Your task to perform on an android device: turn on the 24-hour format for clock Image 0: 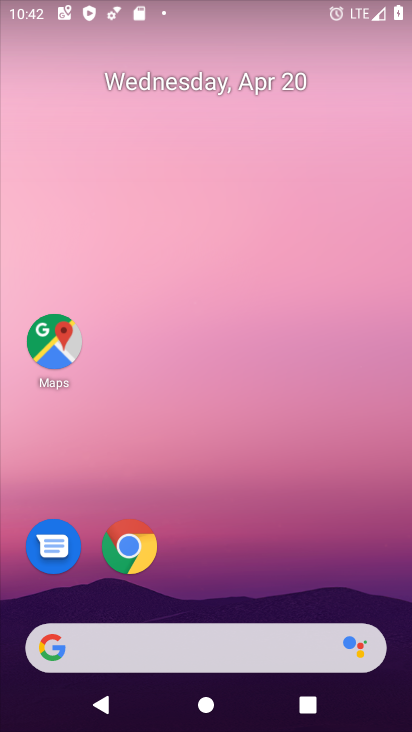
Step 0: drag from (256, 480) to (216, 150)
Your task to perform on an android device: turn on the 24-hour format for clock Image 1: 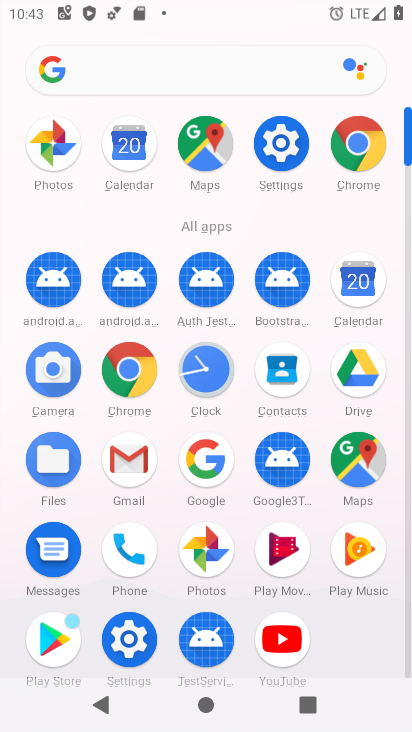
Step 1: click (206, 351)
Your task to perform on an android device: turn on the 24-hour format for clock Image 2: 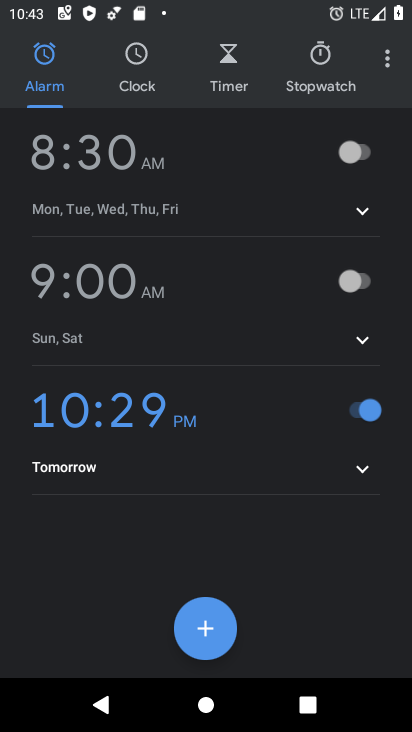
Step 2: click (386, 63)
Your task to perform on an android device: turn on the 24-hour format for clock Image 3: 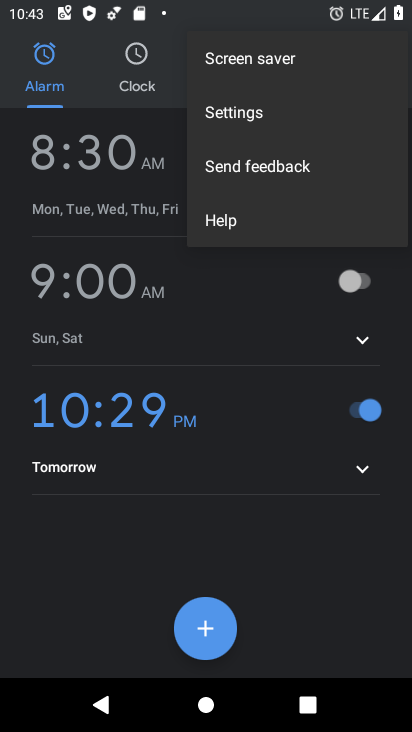
Step 3: click (249, 119)
Your task to perform on an android device: turn on the 24-hour format for clock Image 4: 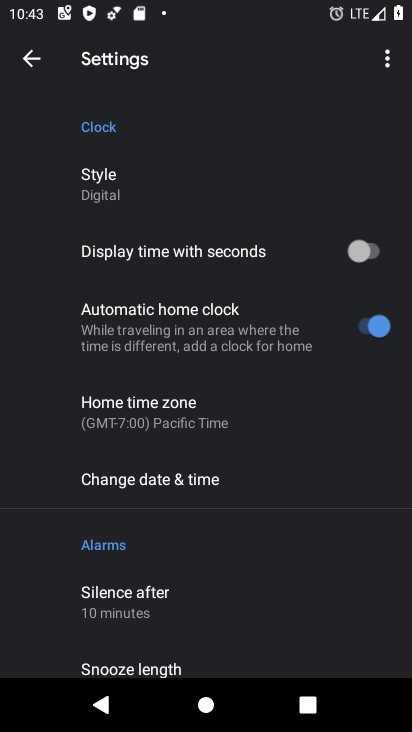
Step 4: click (165, 483)
Your task to perform on an android device: turn on the 24-hour format for clock Image 5: 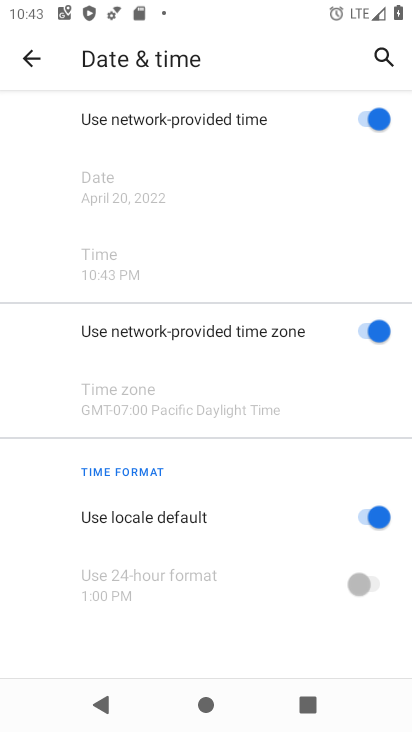
Step 5: click (369, 584)
Your task to perform on an android device: turn on the 24-hour format for clock Image 6: 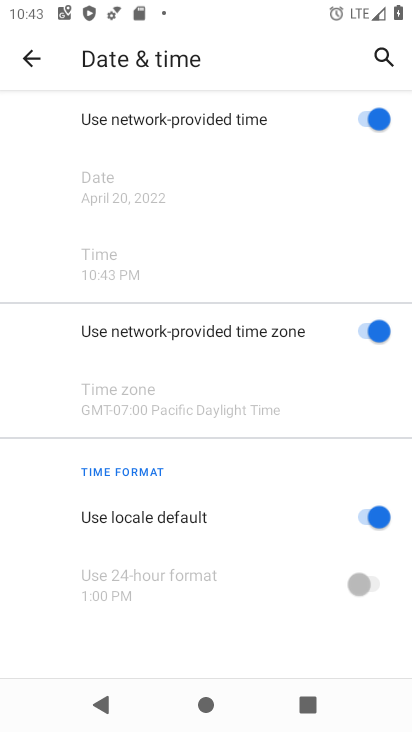
Step 6: click (359, 588)
Your task to perform on an android device: turn on the 24-hour format for clock Image 7: 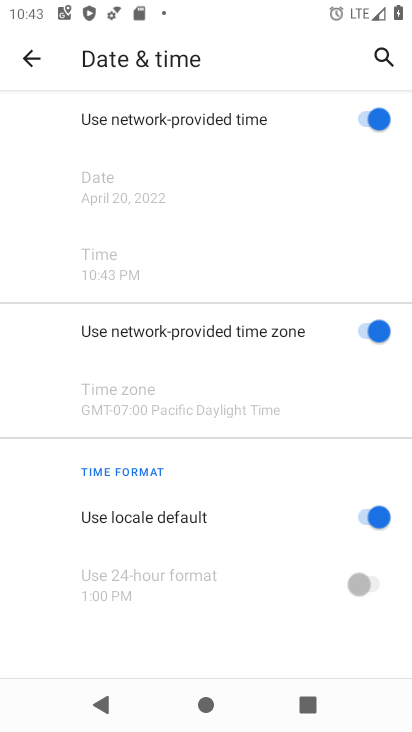
Step 7: click (382, 517)
Your task to perform on an android device: turn on the 24-hour format for clock Image 8: 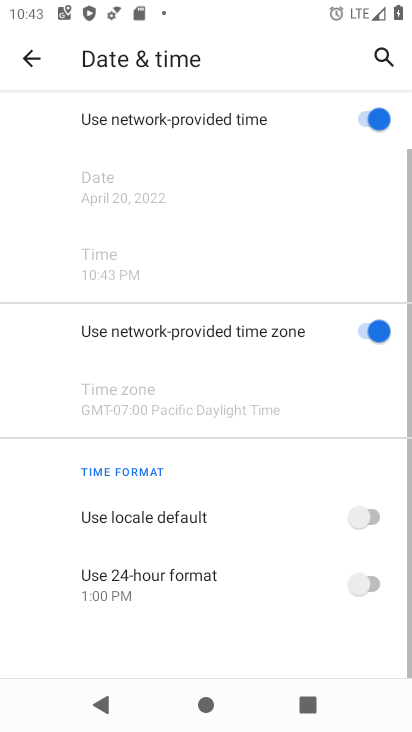
Step 8: click (366, 582)
Your task to perform on an android device: turn on the 24-hour format for clock Image 9: 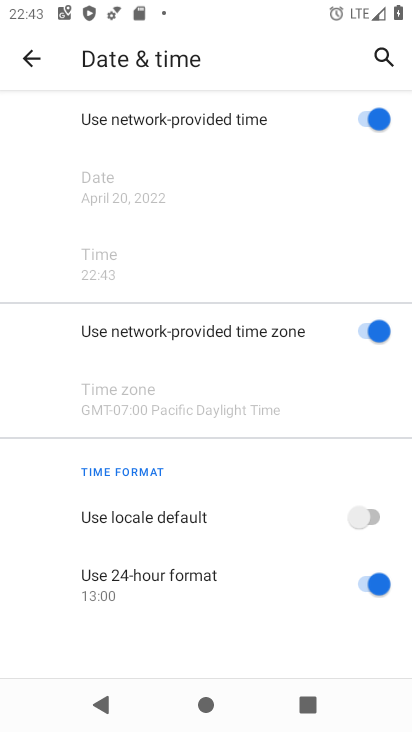
Step 9: task complete